Your task to perform on an android device: set an alarm Image 0: 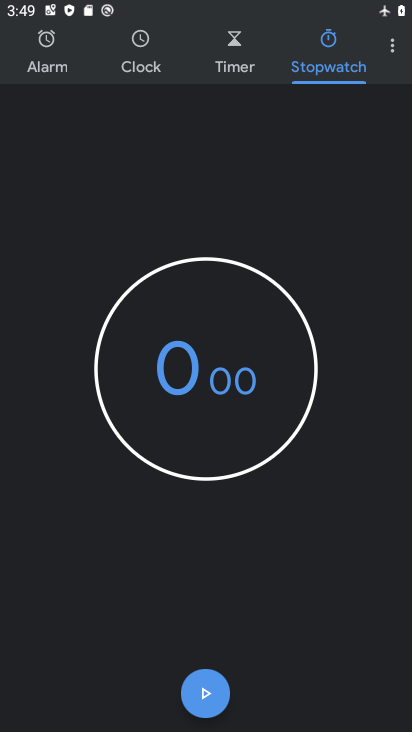
Step 0: press home button
Your task to perform on an android device: set an alarm Image 1: 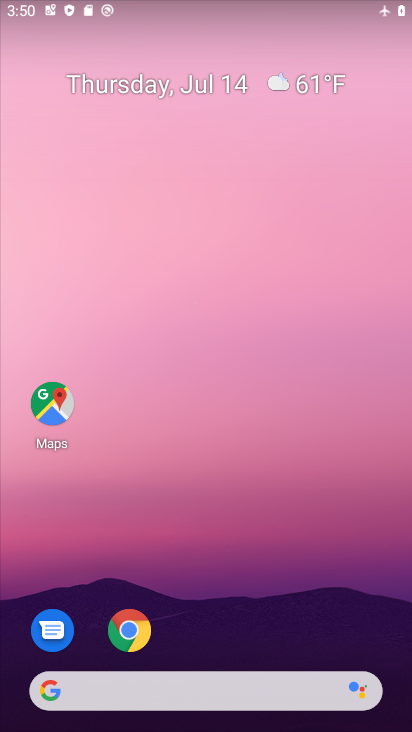
Step 1: drag from (367, 606) to (319, 172)
Your task to perform on an android device: set an alarm Image 2: 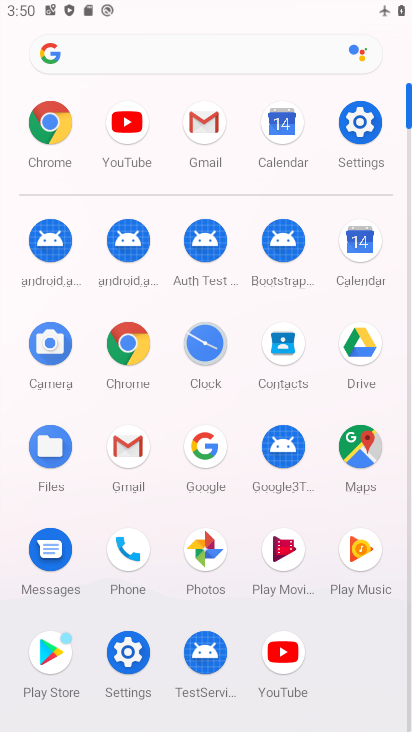
Step 2: click (212, 352)
Your task to perform on an android device: set an alarm Image 3: 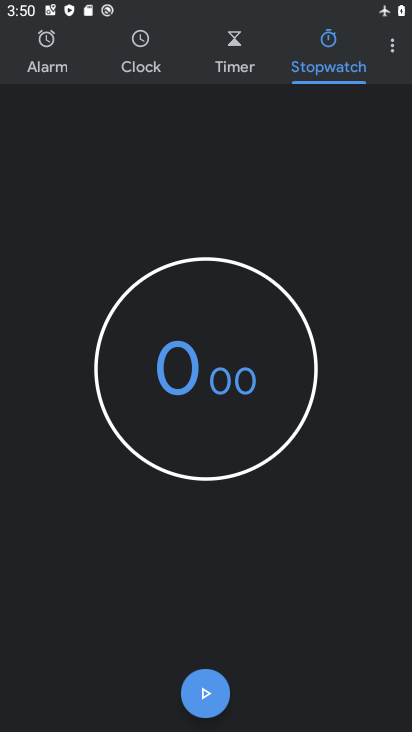
Step 3: click (59, 46)
Your task to perform on an android device: set an alarm Image 4: 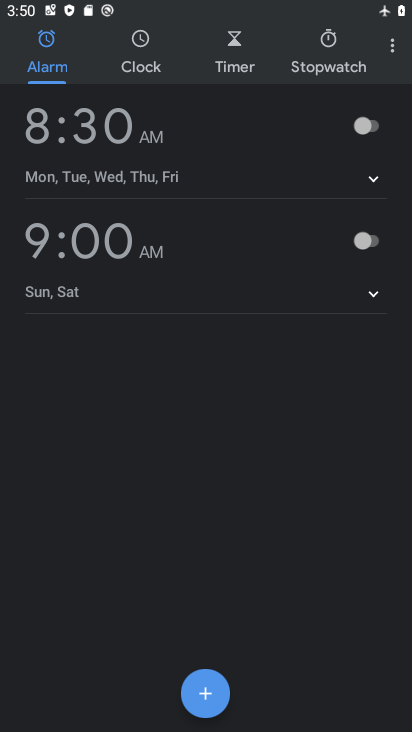
Step 4: click (363, 135)
Your task to perform on an android device: set an alarm Image 5: 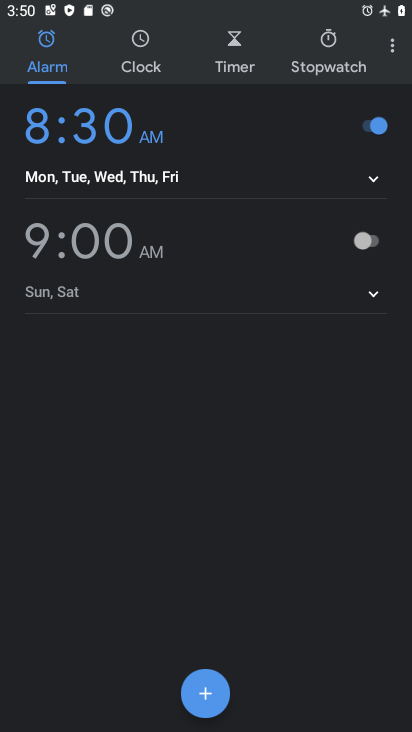
Step 5: task complete